Your task to perform on an android device: Go to settings Image 0: 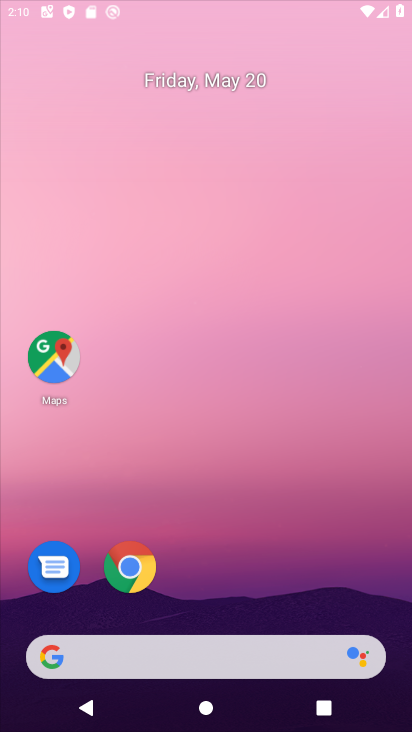
Step 0: drag from (249, 204) to (255, 9)
Your task to perform on an android device: Go to settings Image 1: 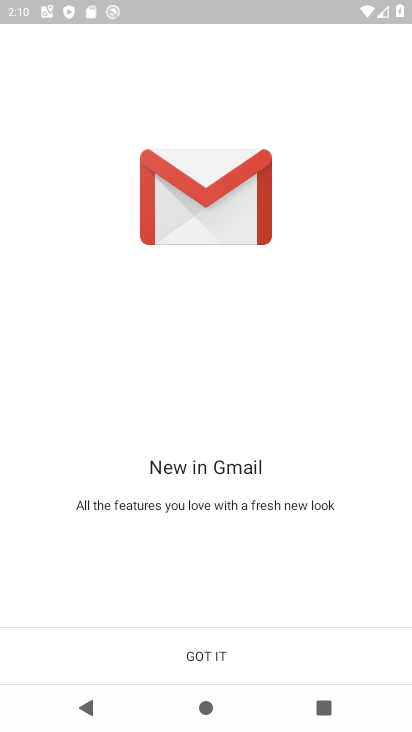
Step 1: press back button
Your task to perform on an android device: Go to settings Image 2: 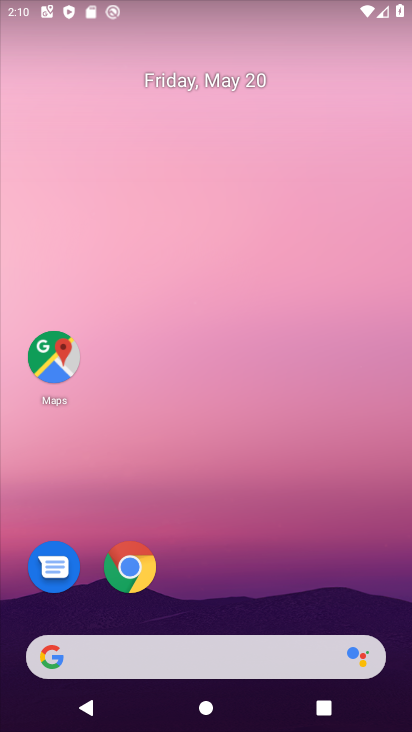
Step 2: drag from (250, 504) to (186, 20)
Your task to perform on an android device: Go to settings Image 3: 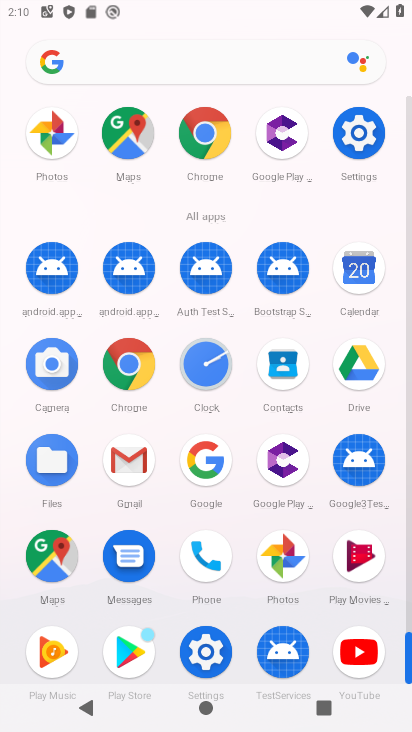
Step 3: drag from (12, 380) to (14, 258)
Your task to perform on an android device: Go to settings Image 4: 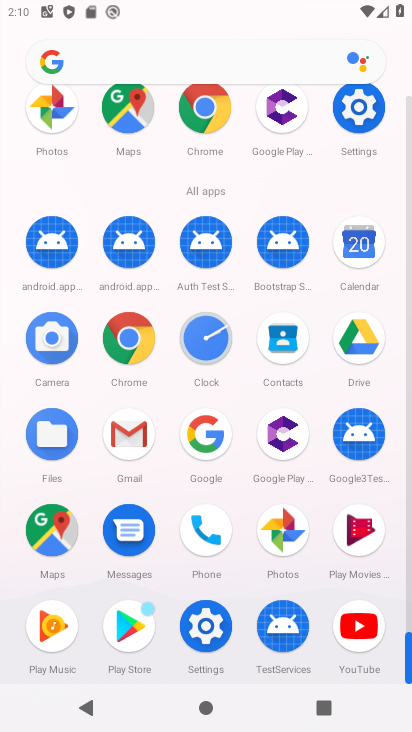
Step 4: click (207, 650)
Your task to perform on an android device: Go to settings Image 5: 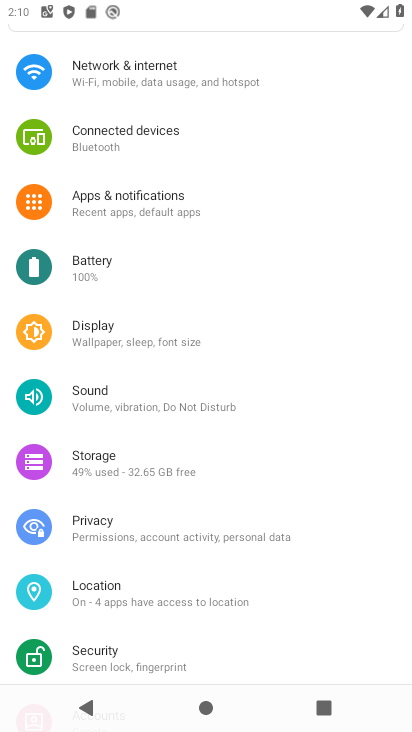
Step 5: task complete